Your task to perform on an android device: make emails show in primary in the gmail app Image 0: 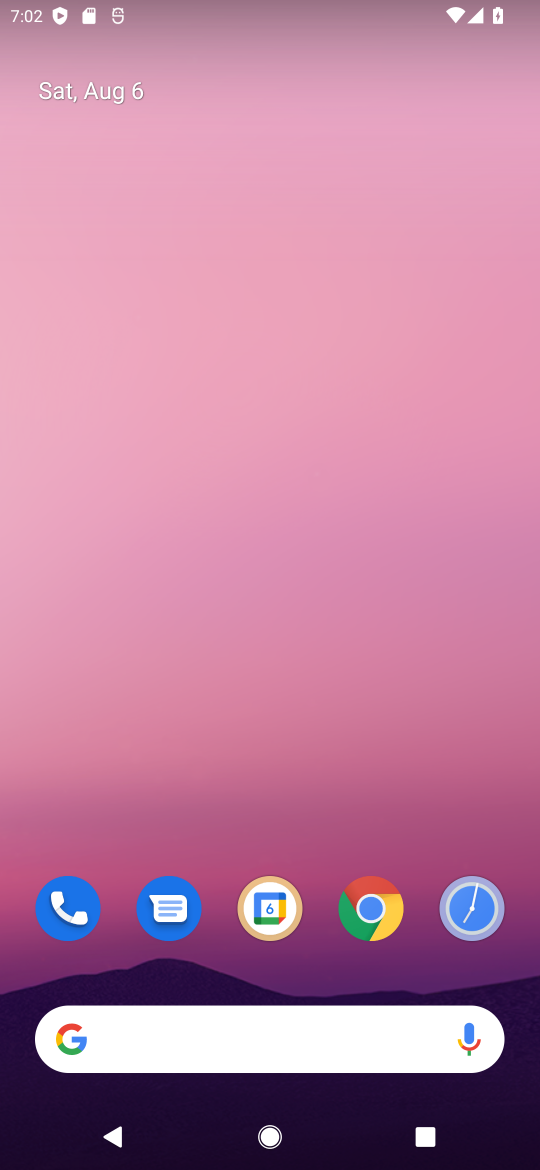
Step 0: drag from (313, 854) to (257, 241)
Your task to perform on an android device: make emails show in primary in the gmail app Image 1: 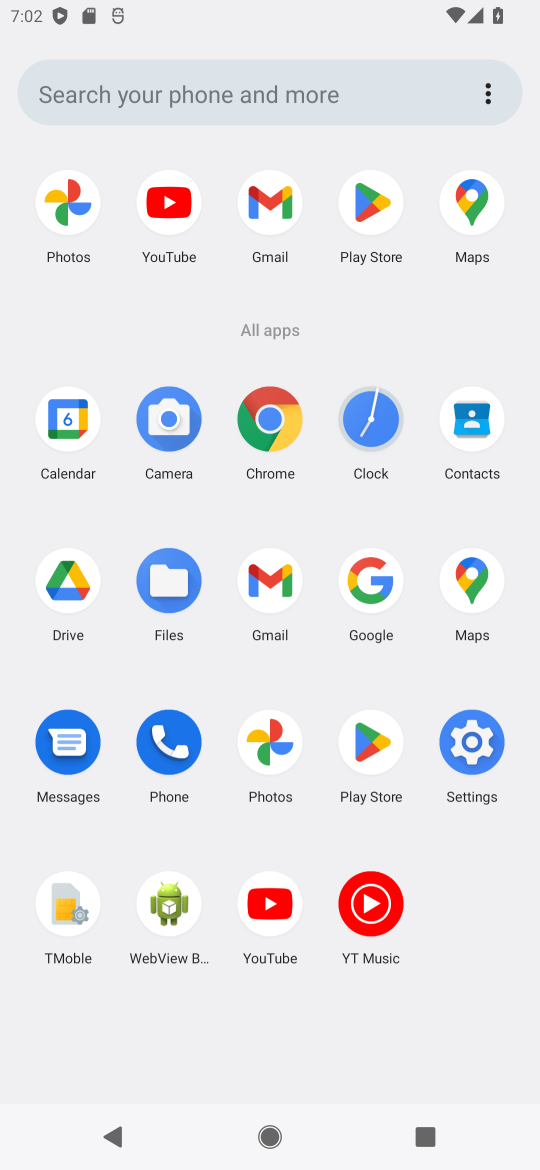
Step 1: click (257, 241)
Your task to perform on an android device: make emails show in primary in the gmail app Image 2: 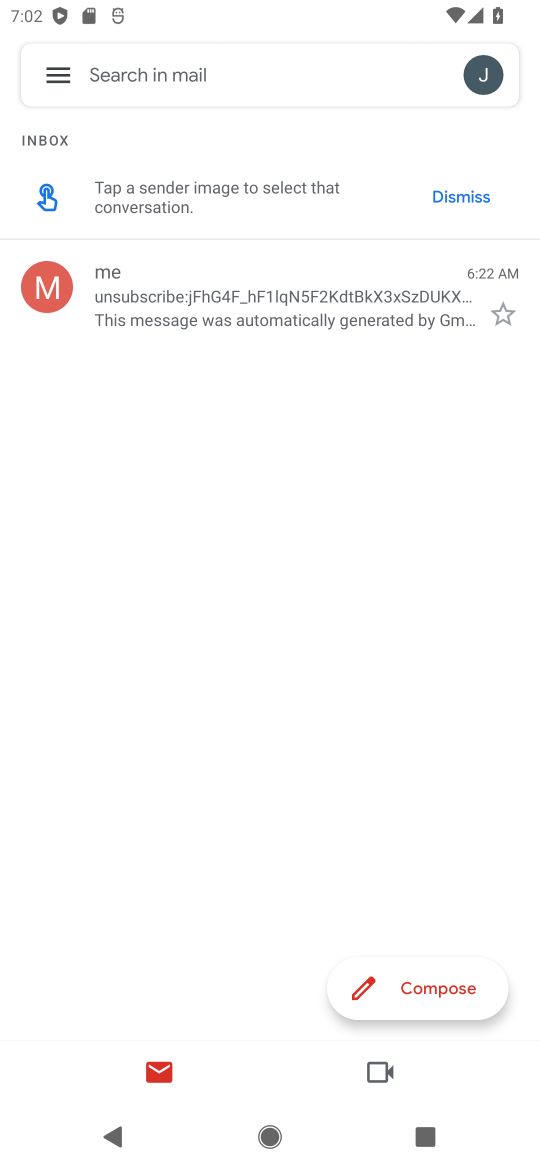
Step 2: click (53, 86)
Your task to perform on an android device: make emails show in primary in the gmail app Image 3: 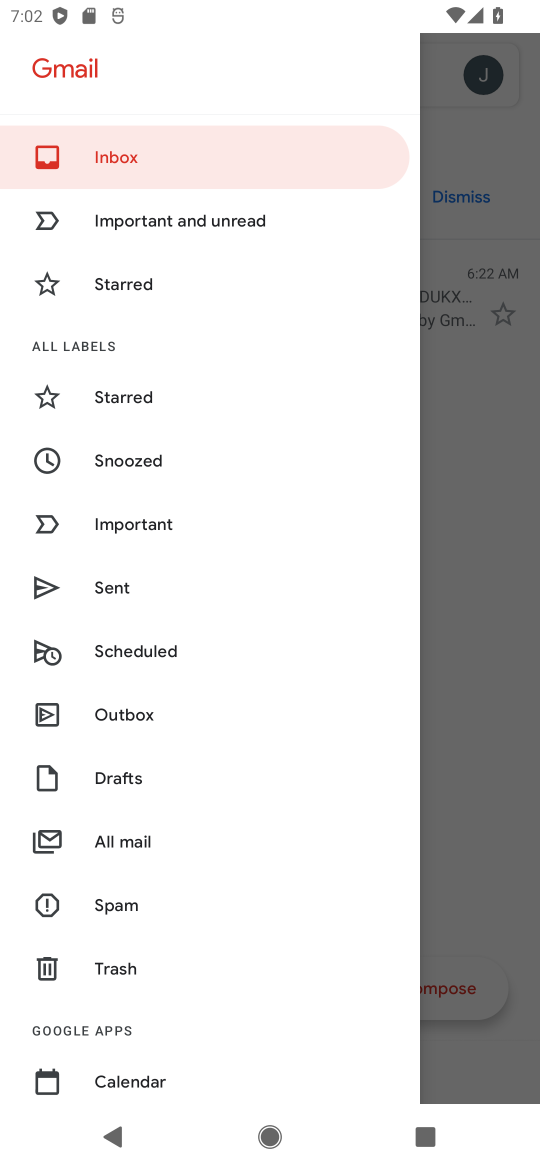
Step 3: drag from (190, 998) to (159, 362)
Your task to perform on an android device: make emails show in primary in the gmail app Image 4: 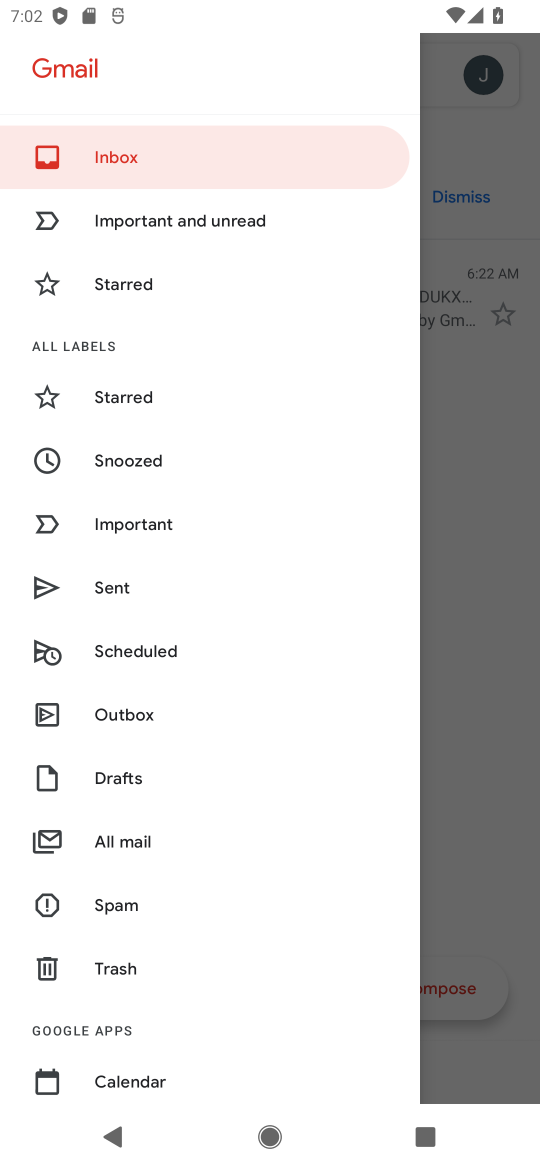
Step 4: drag from (173, 988) to (197, 521)
Your task to perform on an android device: make emails show in primary in the gmail app Image 5: 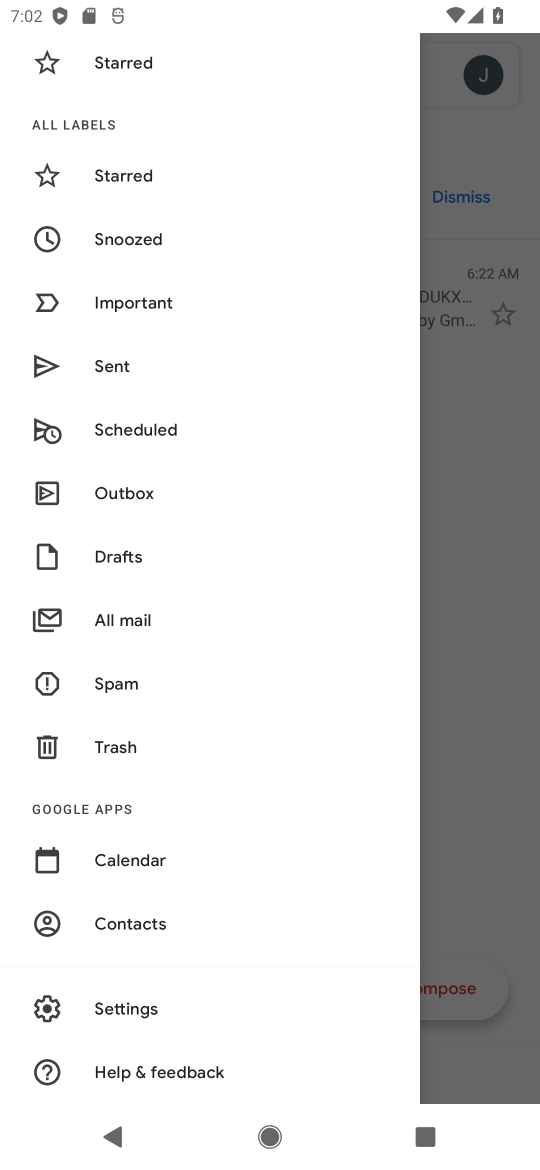
Step 5: click (155, 1015)
Your task to perform on an android device: make emails show in primary in the gmail app Image 6: 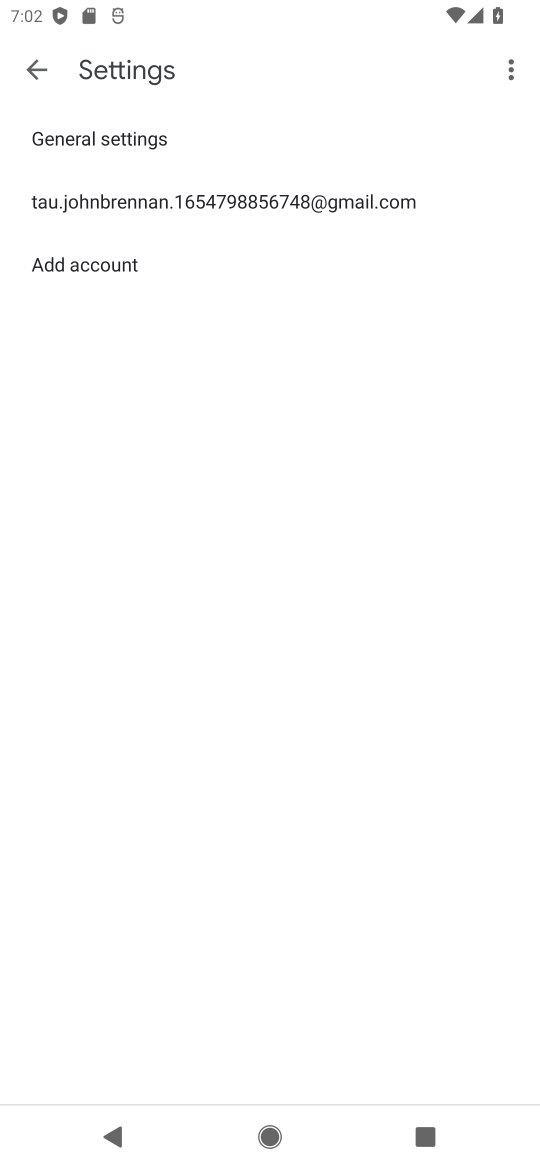
Step 6: click (138, 193)
Your task to perform on an android device: make emails show in primary in the gmail app Image 7: 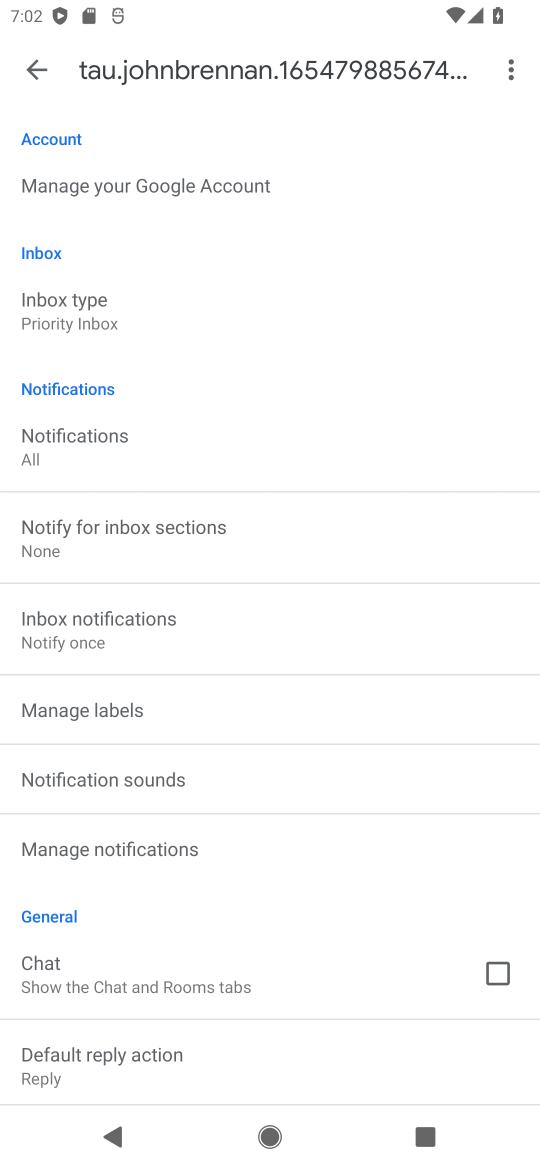
Step 7: click (115, 302)
Your task to perform on an android device: make emails show in primary in the gmail app Image 8: 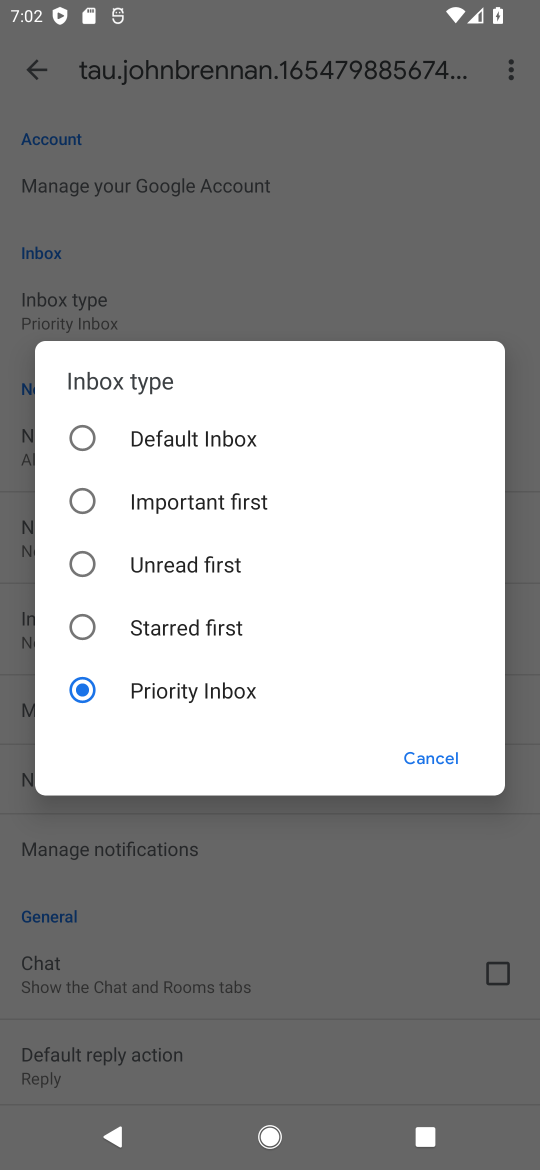
Step 8: click (136, 436)
Your task to perform on an android device: make emails show in primary in the gmail app Image 9: 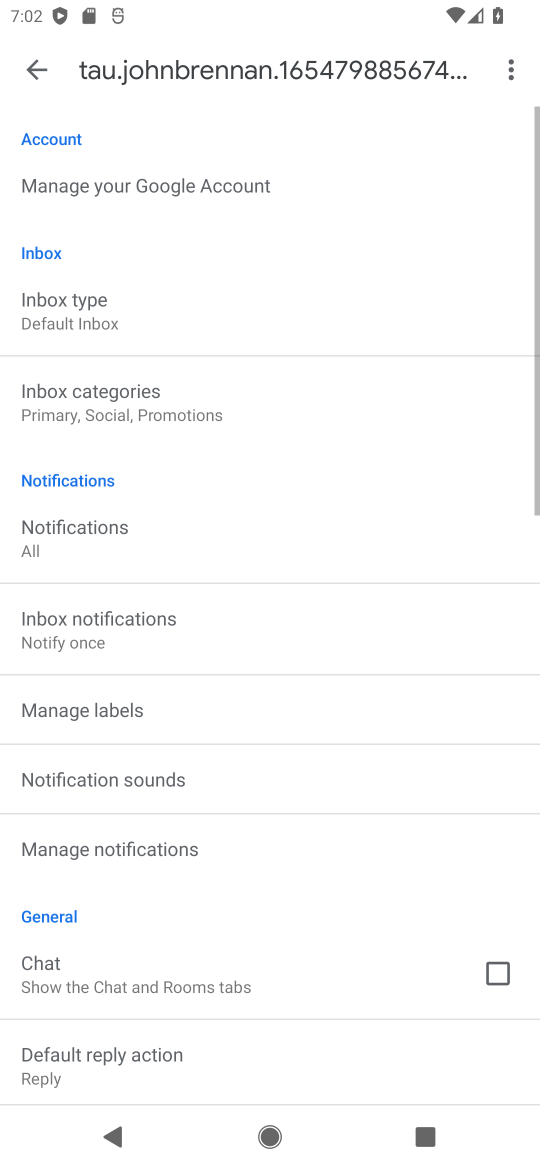
Step 9: click (100, 381)
Your task to perform on an android device: make emails show in primary in the gmail app Image 10: 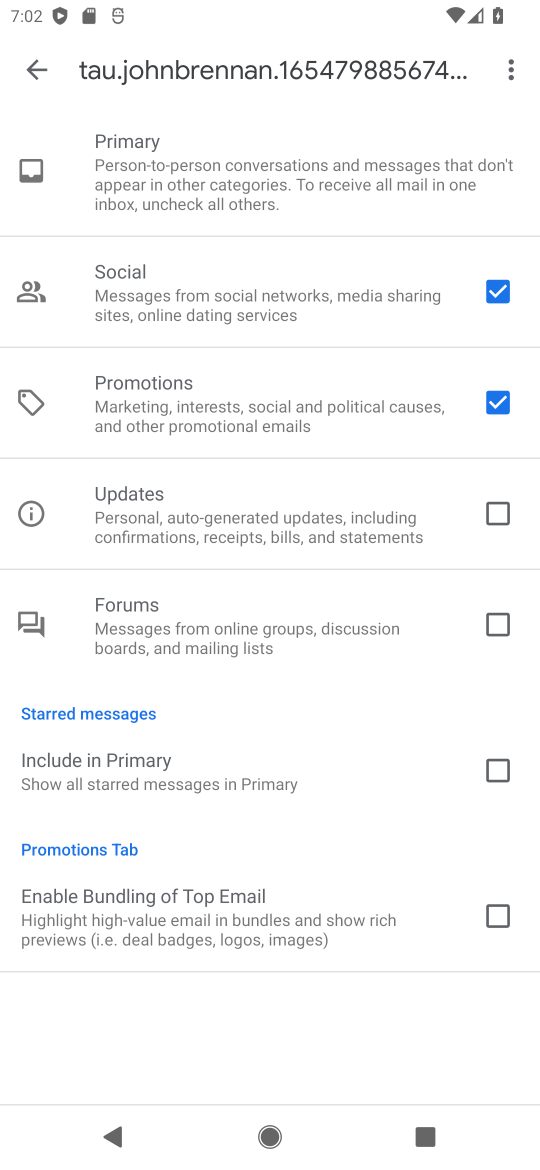
Step 10: click (496, 402)
Your task to perform on an android device: make emails show in primary in the gmail app Image 11: 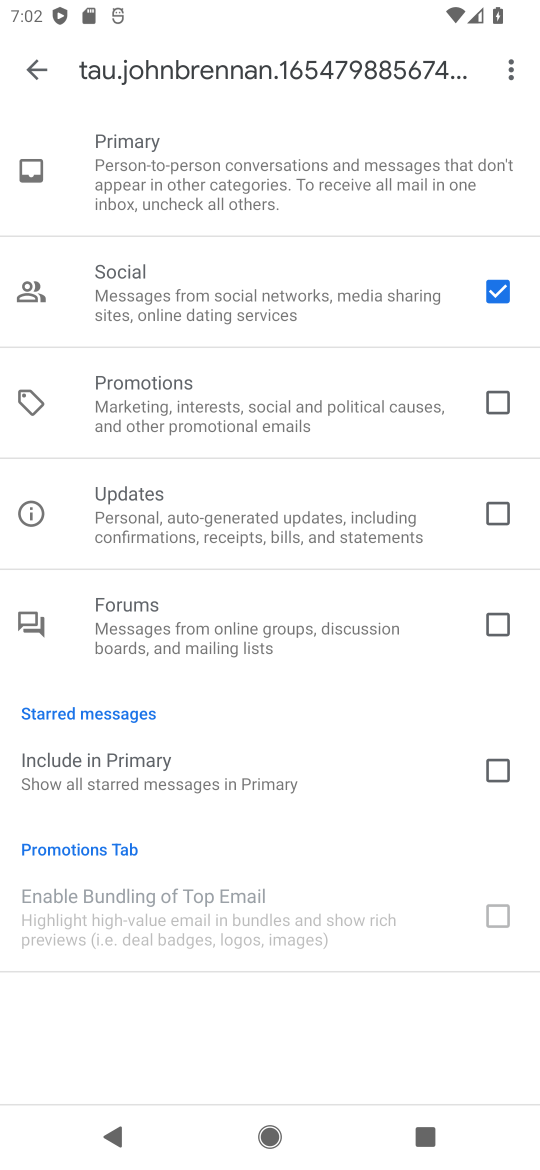
Step 11: click (493, 287)
Your task to perform on an android device: make emails show in primary in the gmail app Image 12: 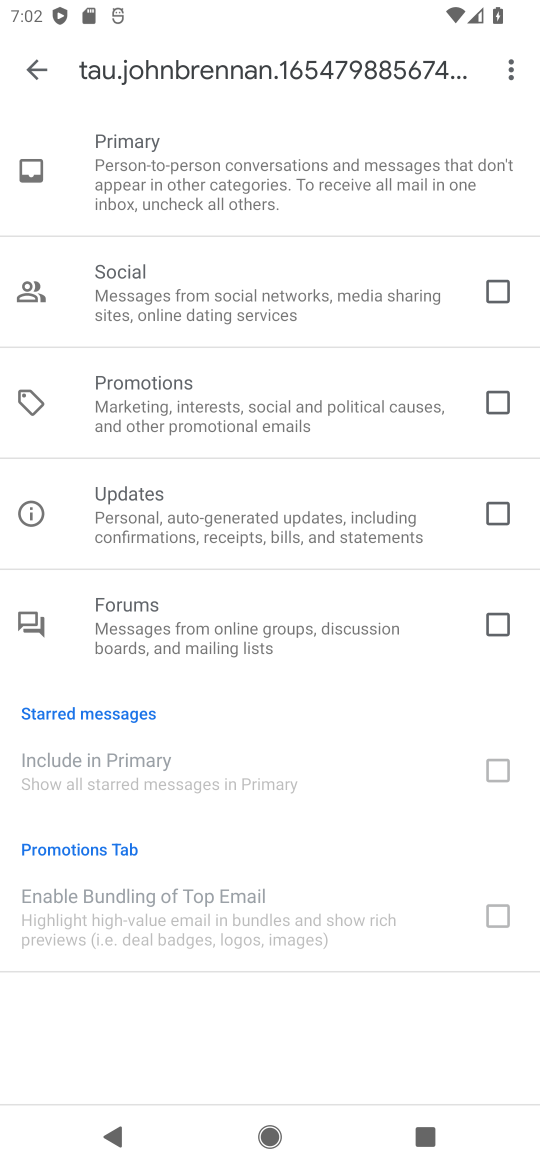
Step 12: task complete